Your task to perform on an android device: open device folders in google photos Image 0: 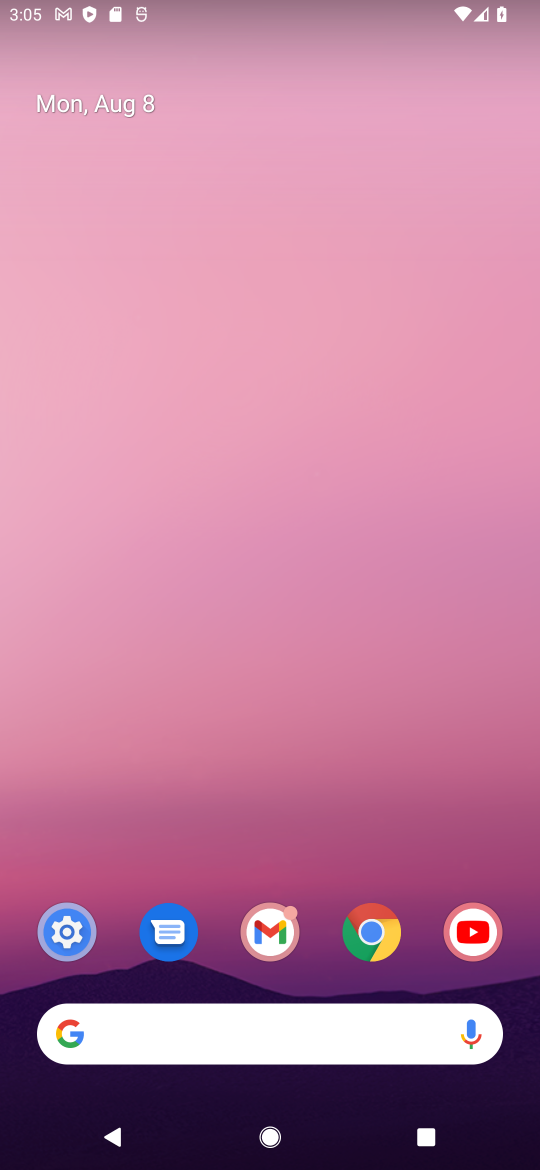
Step 0: drag from (186, 783) to (233, 247)
Your task to perform on an android device: open device folders in google photos Image 1: 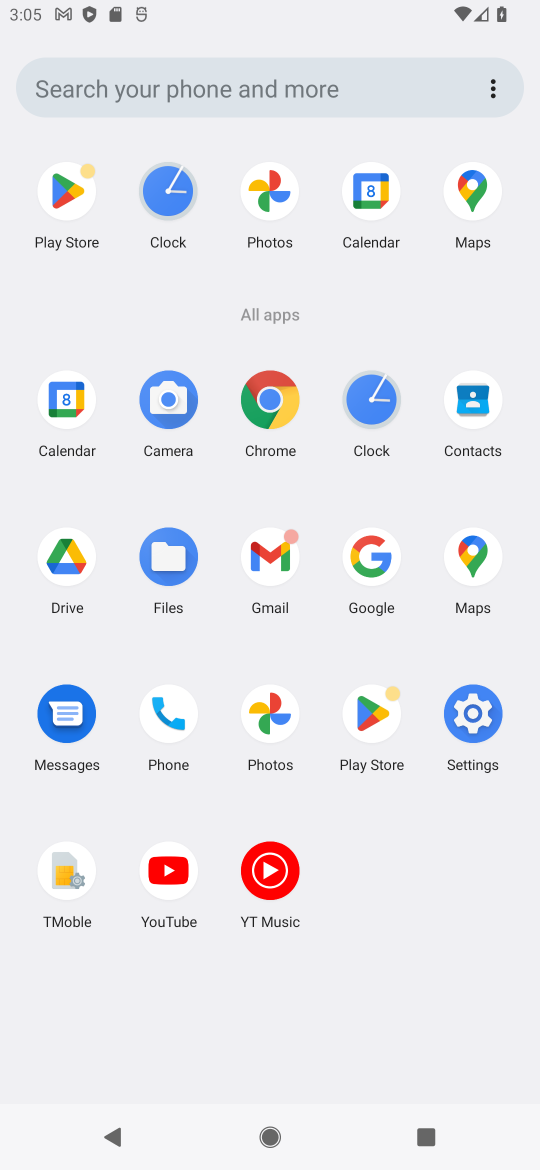
Step 1: click (256, 719)
Your task to perform on an android device: open device folders in google photos Image 2: 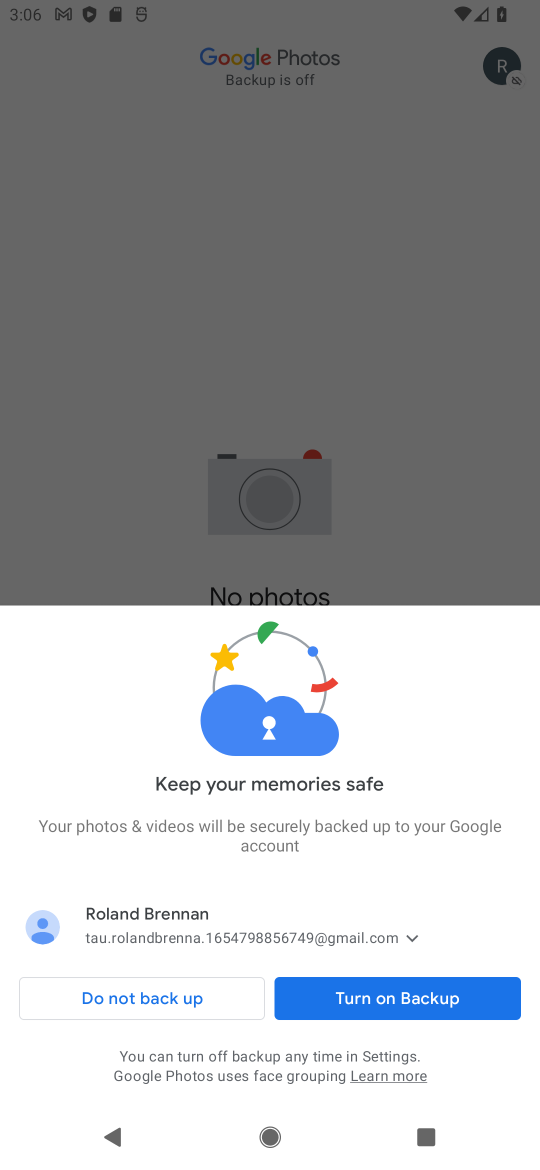
Step 2: click (107, 1005)
Your task to perform on an android device: open device folders in google photos Image 3: 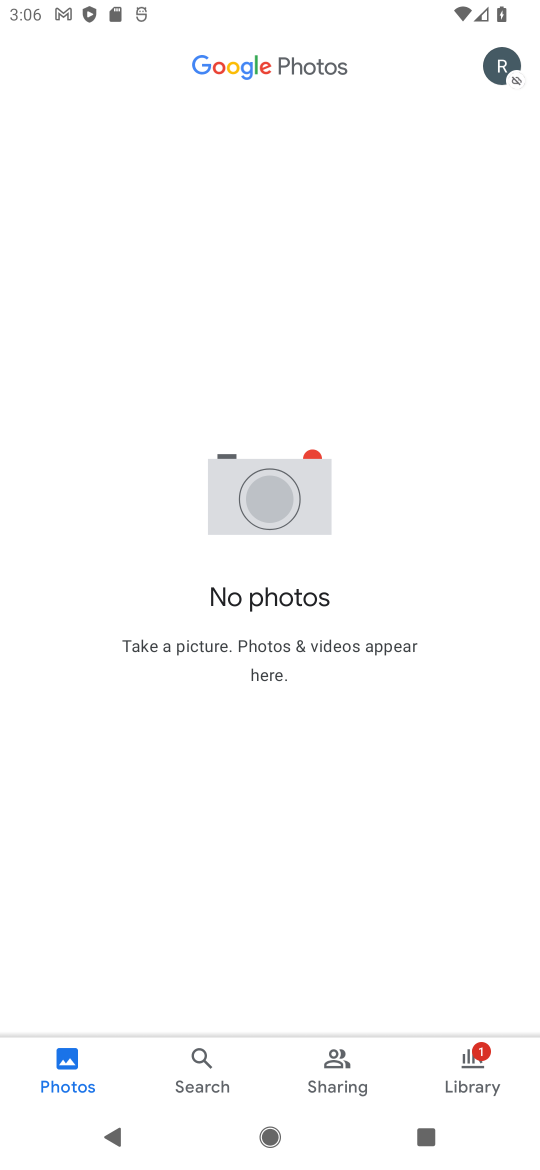
Step 3: click (496, 62)
Your task to perform on an android device: open device folders in google photos Image 4: 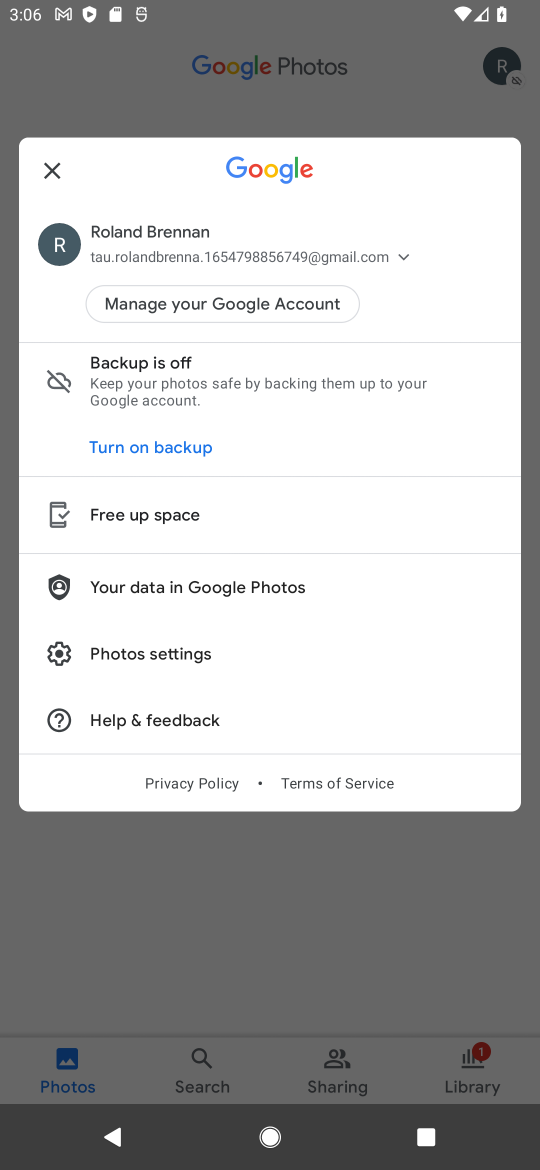
Step 4: click (143, 661)
Your task to perform on an android device: open device folders in google photos Image 5: 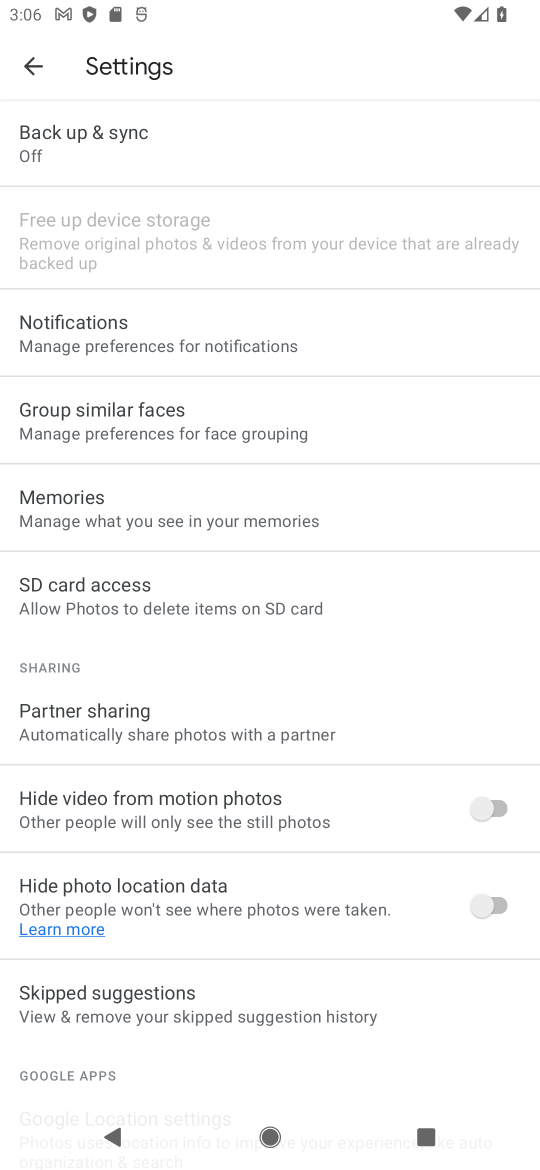
Step 5: task complete